Your task to perform on an android device: When is my next meeting? Image 0: 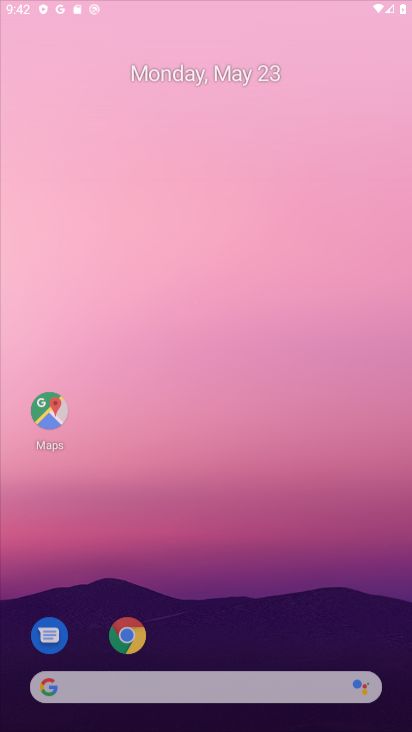
Step 0: drag from (225, 327) to (218, 89)
Your task to perform on an android device: When is my next meeting? Image 1: 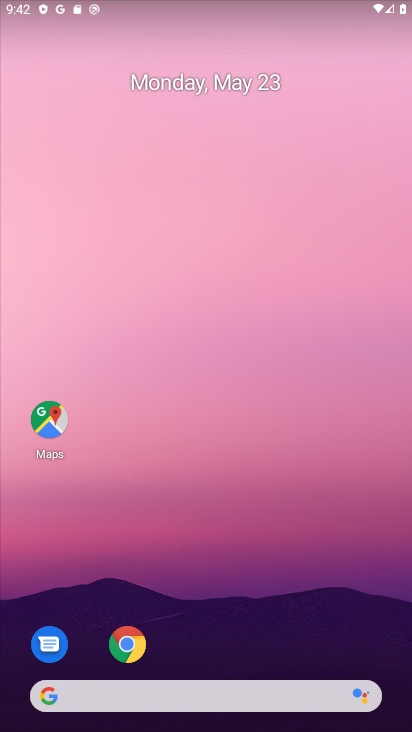
Step 1: press home button
Your task to perform on an android device: When is my next meeting? Image 2: 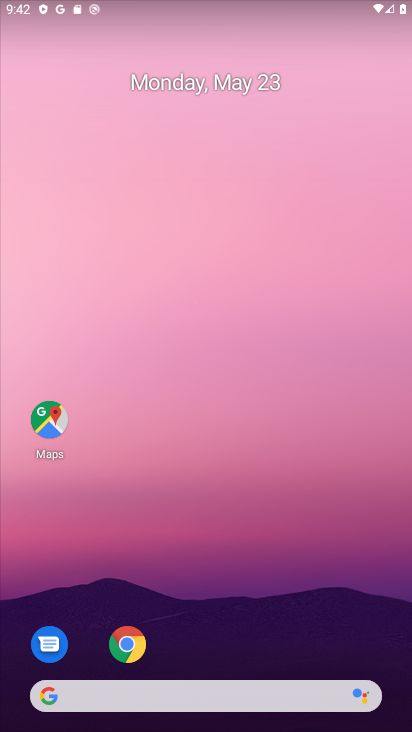
Step 2: drag from (215, 635) to (175, 125)
Your task to perform on an android device: When is my next meeting? Image 3: 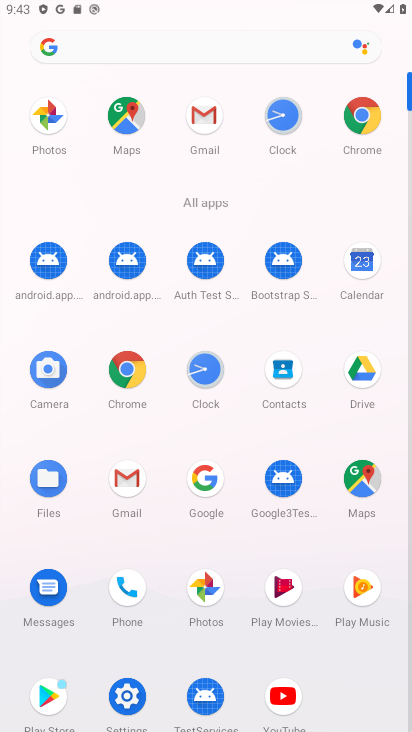
Step 3: click (367, 272)
Your task to perform on an android device: When is my next meeting? Image 4: 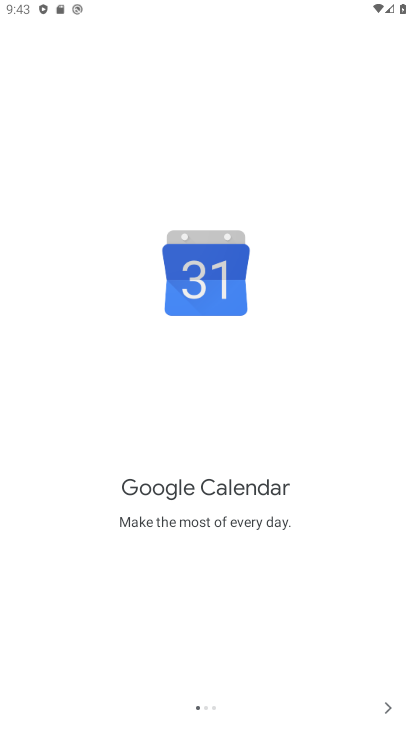
Step 4: click (392, 710)
Your task to perform on an android device: When is my next meeting? Image 5: 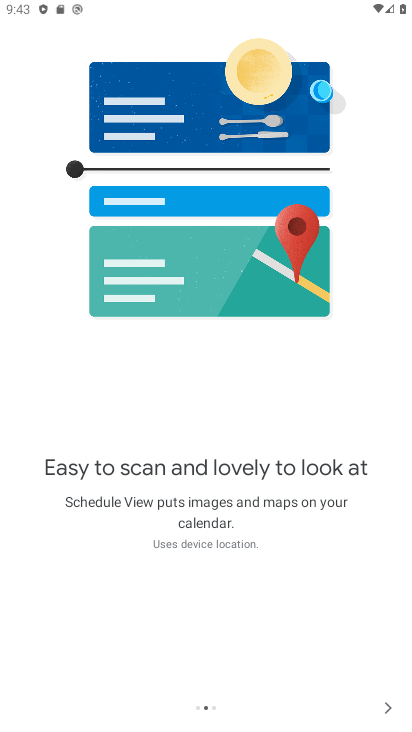
Step 5: click (392, 710)
Your task to perform on an android device: When is my next meeting? Image 6: 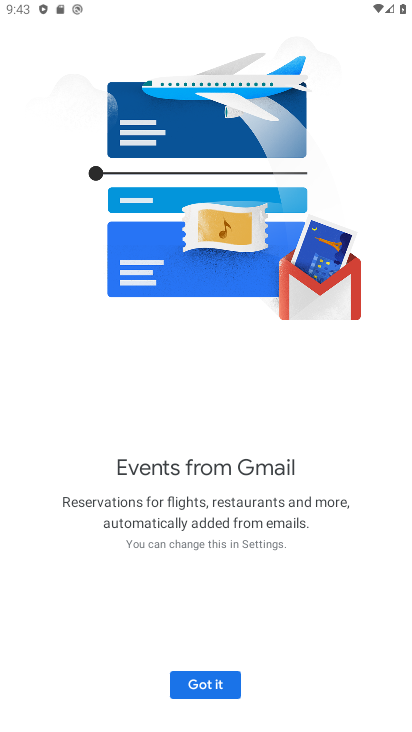
Step 6: click (189, 674)
Your task to perform on an android device: When is my next meeting? Image 7: 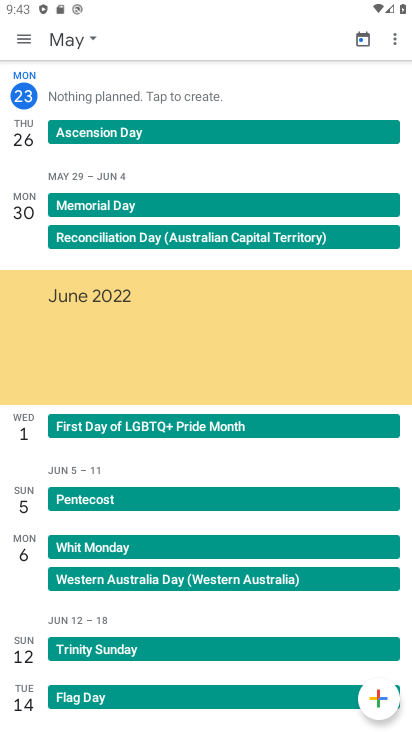
Step 7: task complete